Your task to perform on an android device: open chrome and create a bookmark for the current page Image 0: 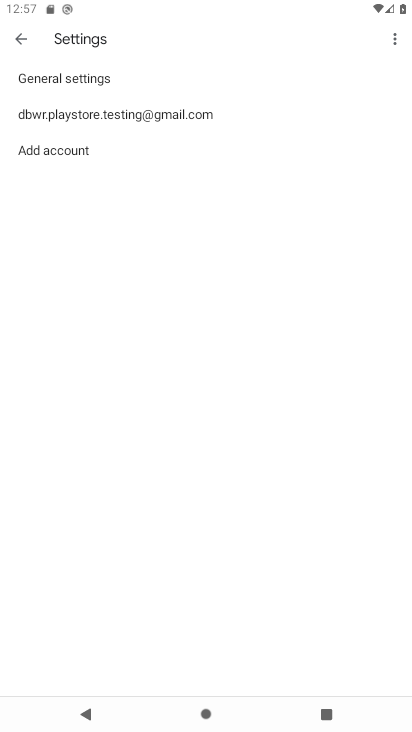
Step 0: press home button
Your task to perform on an android device: open chrome and create a bookmark for the current page Image 1: 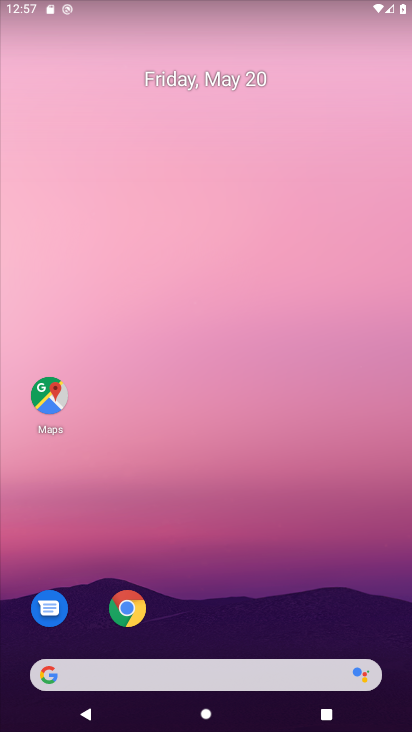
Step 1: click (124, 605)
Your task to perform on an android device: open chrome and create a bookmark for the current page Image 2: 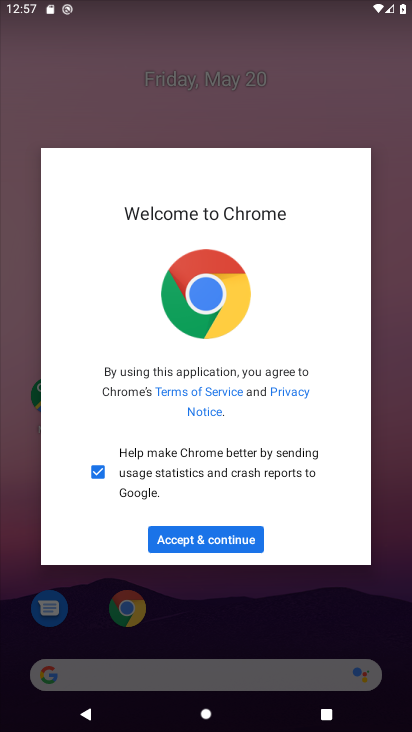
Step 2: click (220, 542)
Your task to perform on an android device: open chrome and create a bookmark for the current page Image 3: 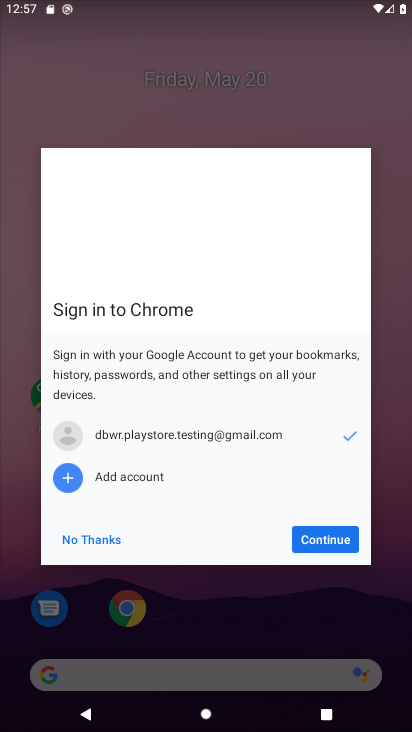
Step 3: click (310, 546)
Your task to perform on an android device: open chrome and create a bookmark for the current page Image 4: 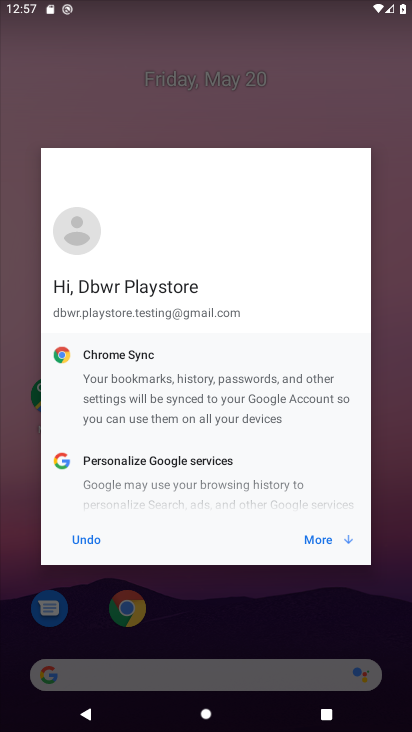
Step 4: click (310, 546)
Your task to perform on an android device: open chrome and create a bookmark for the current page Image 5: 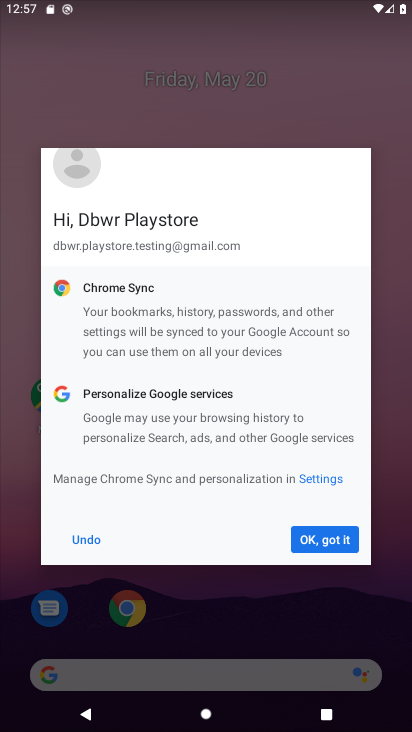
Step 5: click (310, 546)
Your task to perform on an android device: open chrome and create a bookmark for the current page Image 6: 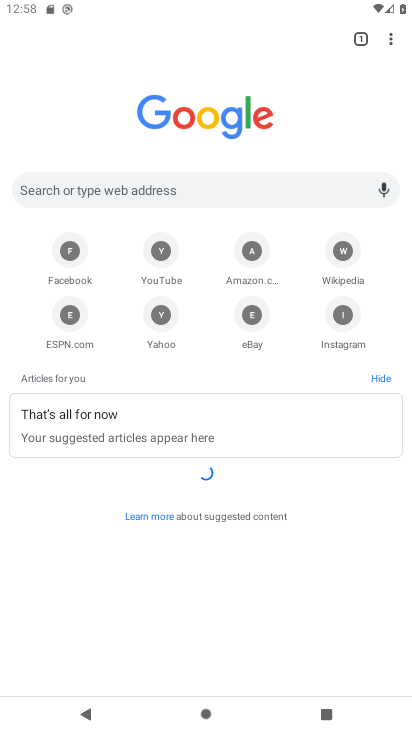
Step 6: task complete